Your task to perform on an android device: Do I have any events this weekend? Image 0: 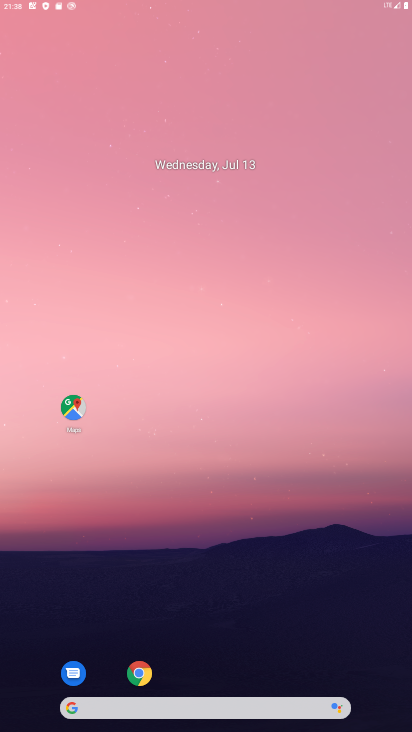
Step 0: drag from (189, 633) to (206, 73)
Your task to perform on an android device: Do I have any events this weekend? Image 1: 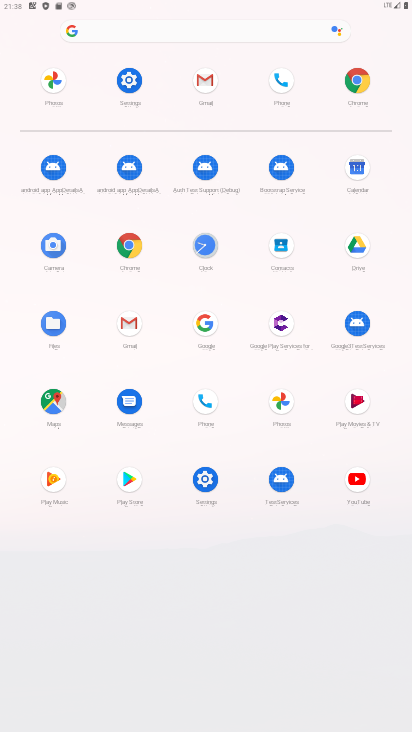
Step 1: click (355, 163)
Your task to perform on an android device: Do I have any events this weekend? Image 2: 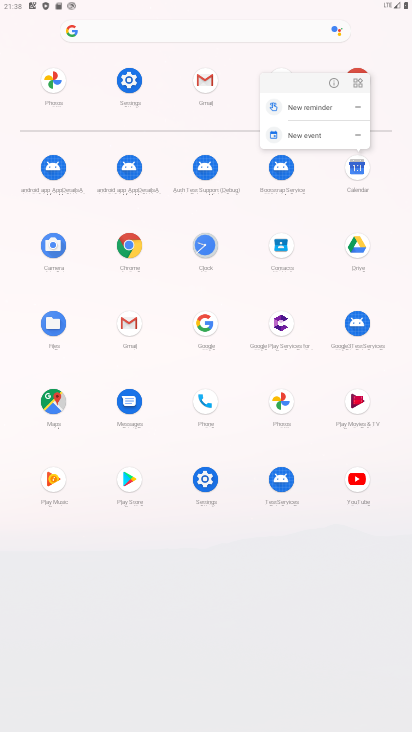
Step 2: click (335, 82)
Your task to perform on an android device: Do I have any events this weekend? Image 3: 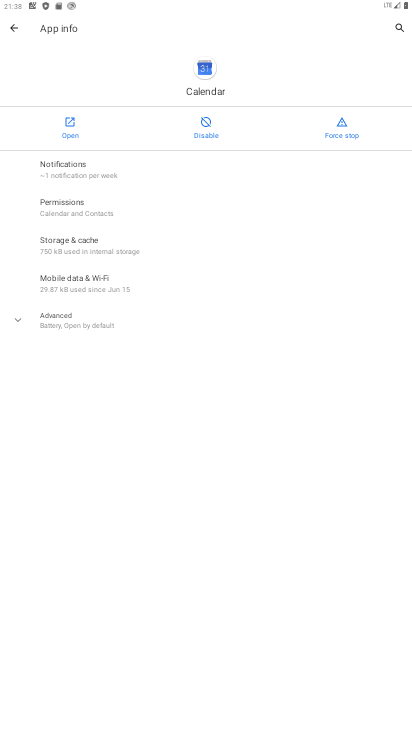
Step 3: click (77, 131)
Your task to perform on an android device: Do I have any events this weekend? Image 4: 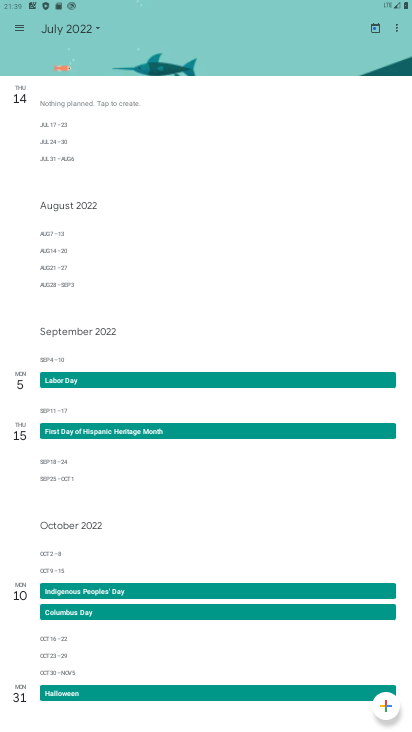
Step 4: drag from (148, 559) to (233, 220)
Your task to perform on an android device: Do I have any events this weekend? Image 5: 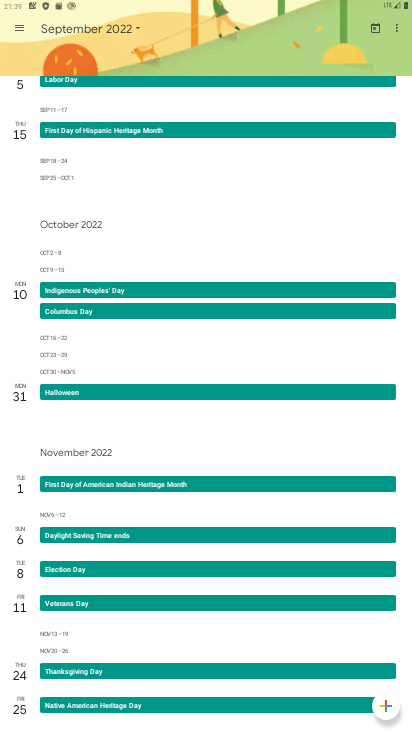
Step 5: drag from (202, 194) to (239, 728)
Your task to perform on an android device: Do I have any events this weekend? Image 6: 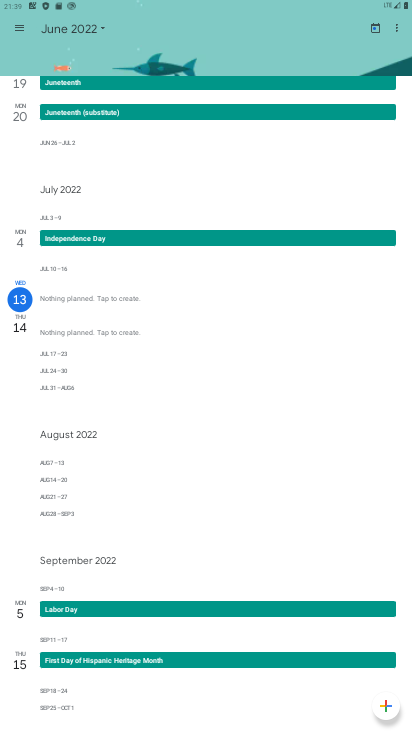
Step 6: click (70, 28)
Your task to perform on an android device: Do I have any events this weekend? Image 7: 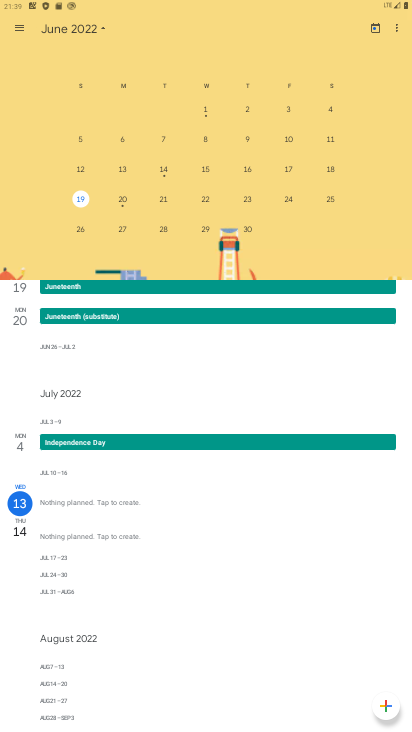
Step 7: click (370, 27)
Your task to perform on an android device: Do I have any events this weekend? Image 8: 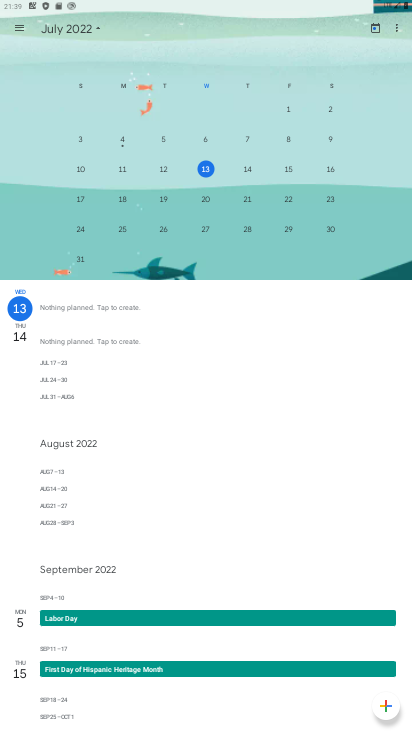
Step 8: click (325, 167)
Your task to perform on an android device: Do I have any events this weekend? Image 9: 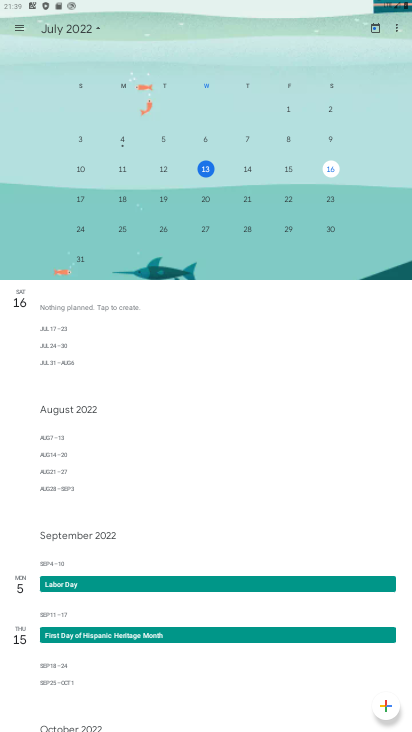
Step 9: task complete